Your task to perform on an android device: uninstall "NewsBreak: Local News & Alerts" Image 0: 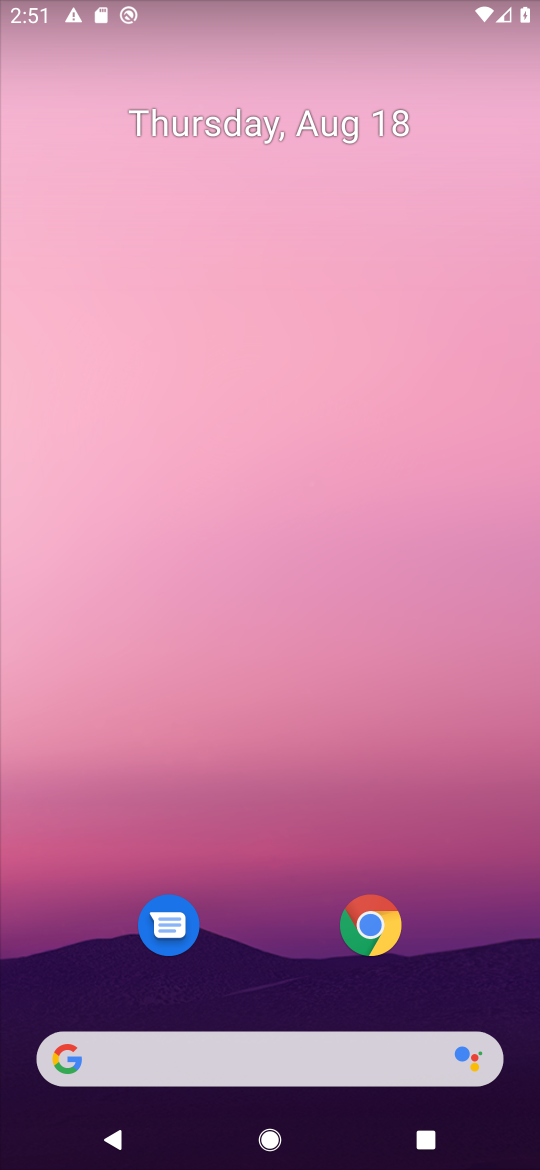
Step 0: drag from (314, 521) to (323, 381)
Your task to perform on an android device: uninstall "NewsBreak: Local News & Alerts" Image 1: 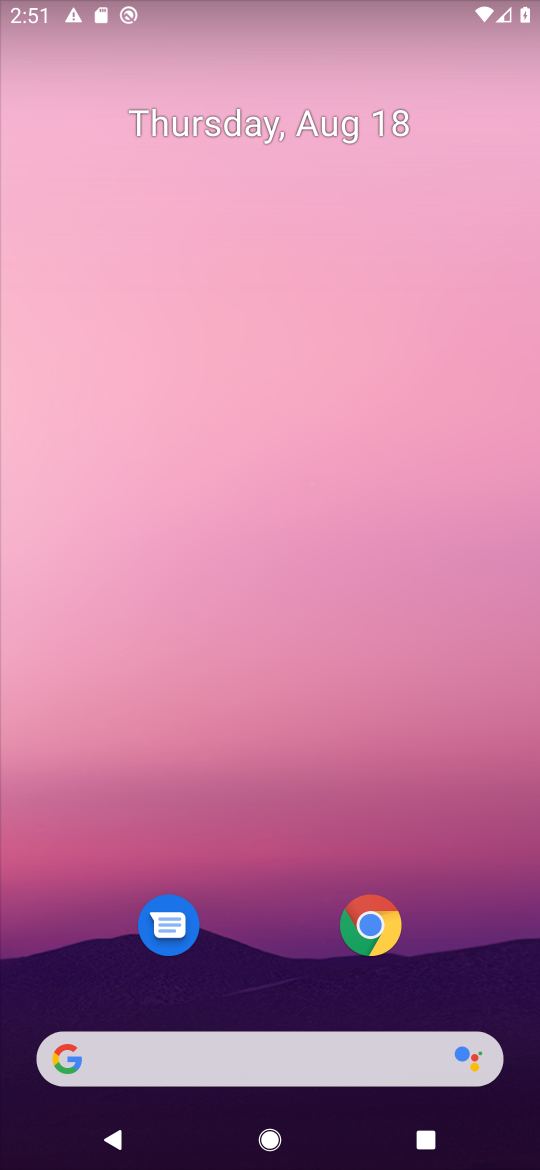
Step 1: drag from (289, 682) to (346, 265)
Your task to perform on an android device: uninstall "NewsBreak: Local News & Alerts" Image 2: 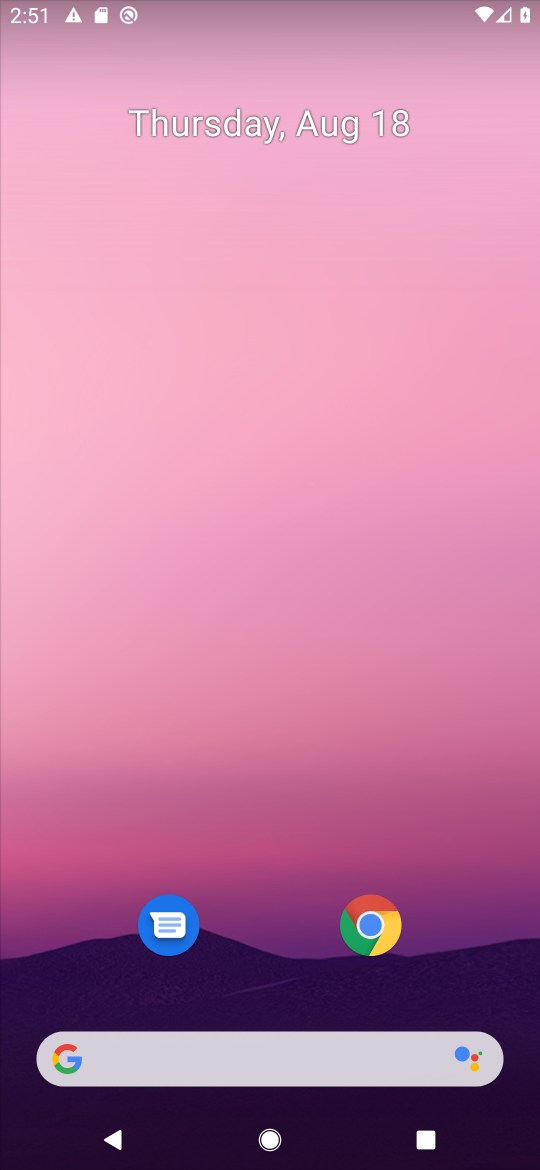
Step 2: click (260, 292)
Your task to perform on an android device: uninstall "NewsBreak: Local News & Alerts" Image 3: 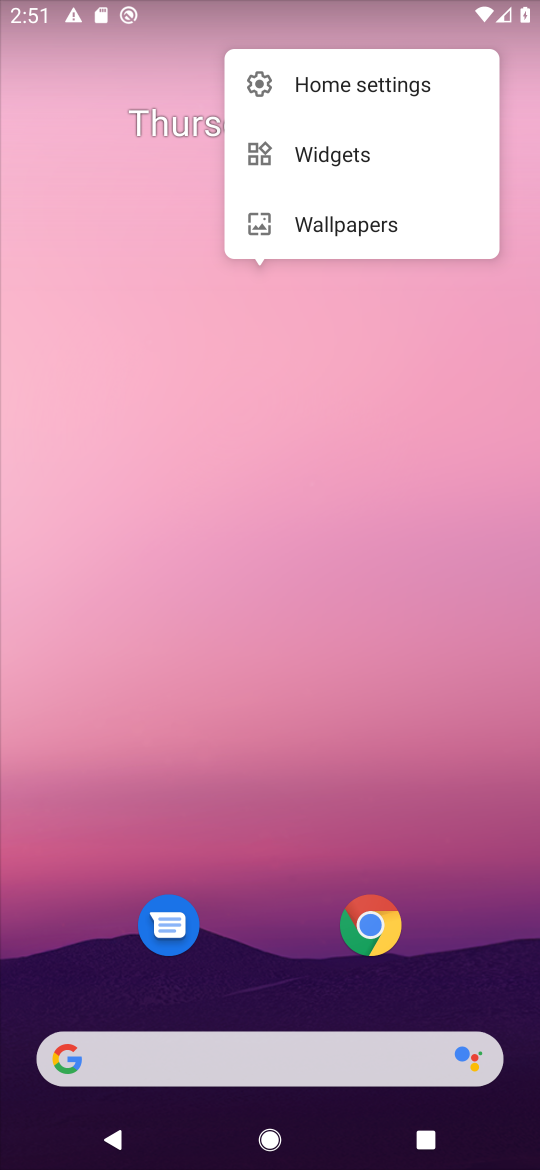
Step 3: click (242, 954)
Your task to perform on an android device: uninstall "NewsBreak: Local News & Alerts" Image 4: 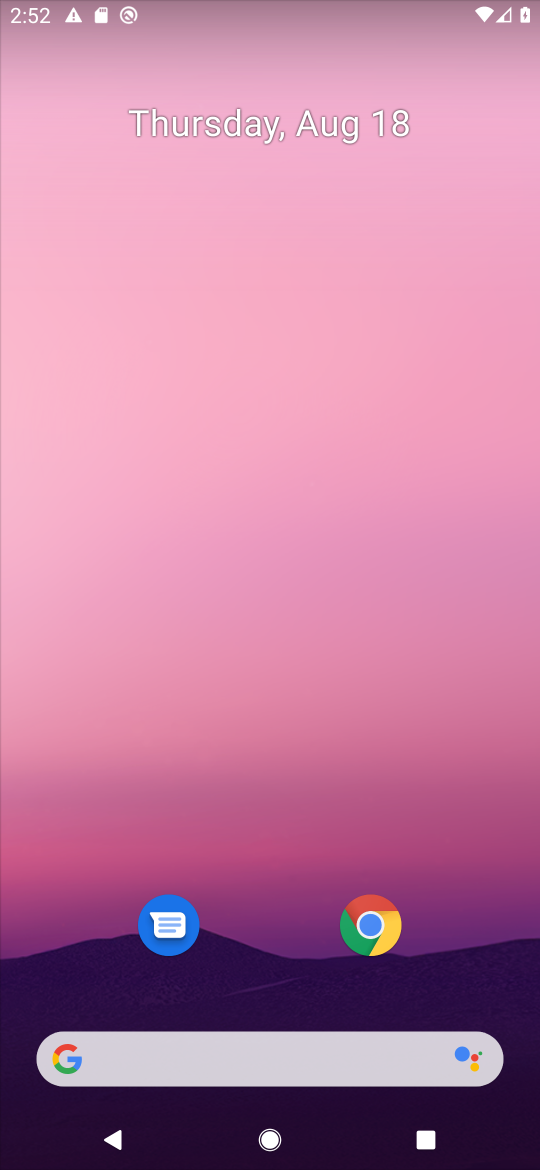
Step 4: drag from (236, 844) to (123, 18)
Your task to perform on an android device: uninstall "NewsBreak: Local News & Alerts" Image 5: 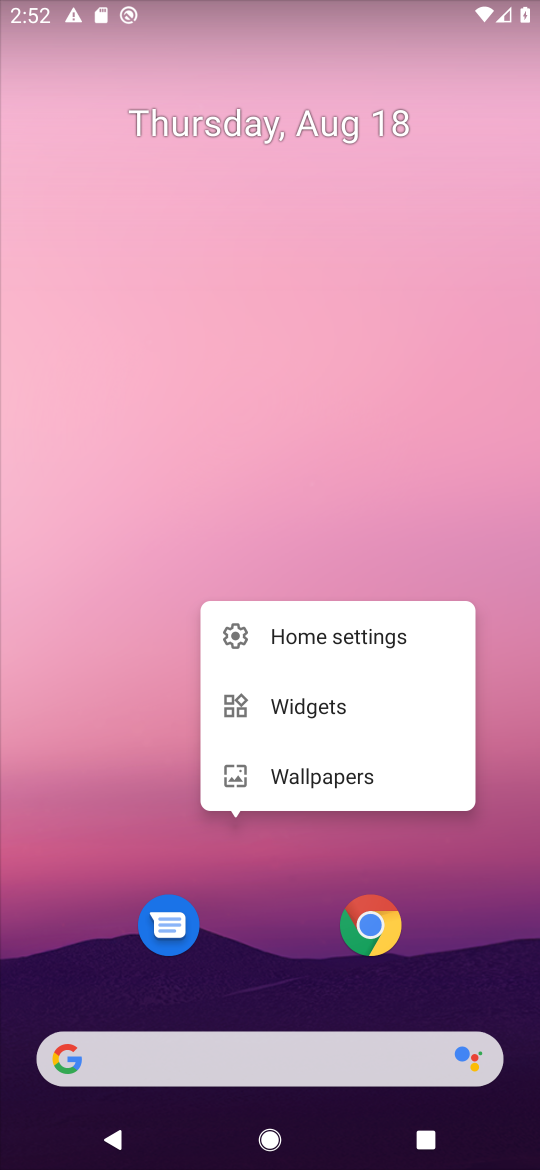
Step 5: drag from (255, 865) to (219, 255)
Your task to perform on an android device: uninstall "NewsBreak: Local News & Alerts" Image 6: 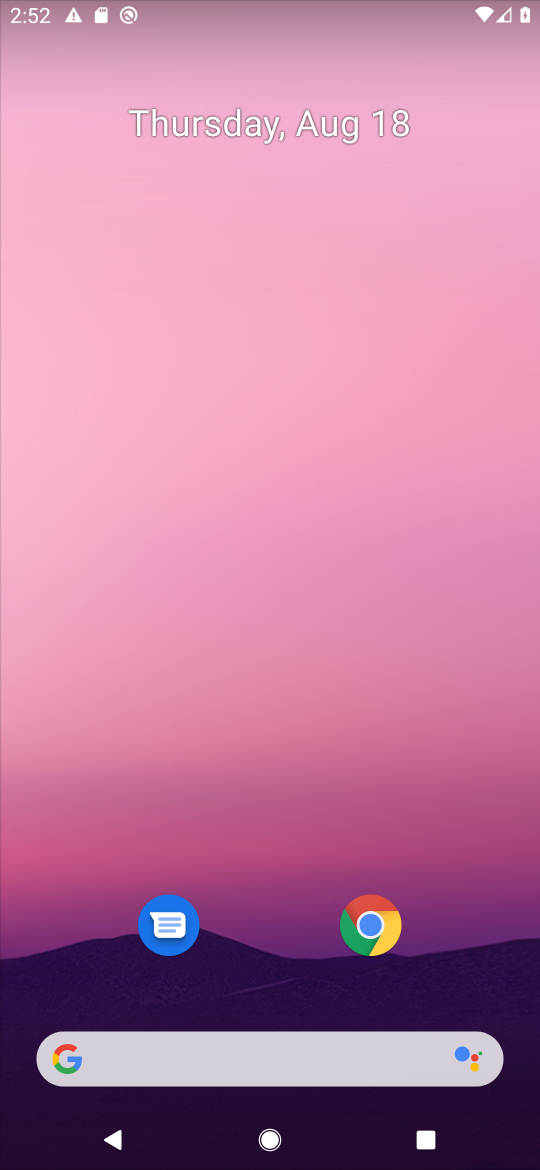
Step 6: drag from (274, 978) to (329, 221)
Your task to perform on an android device: uninstall "NewsBreak: Local News & Alerts" Image 7: 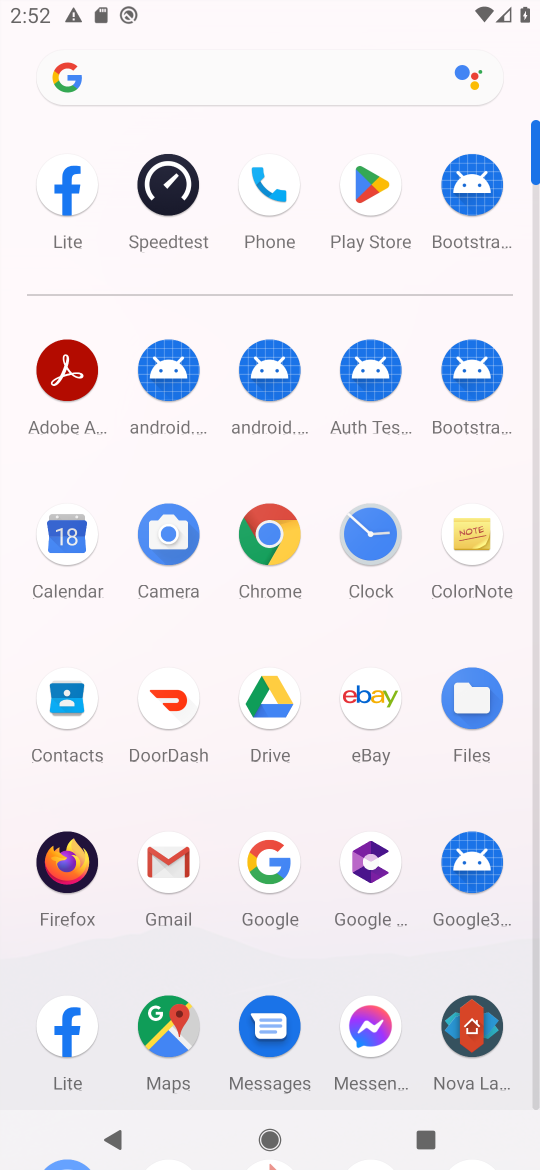
Step 7: click (373, 200)
Your task to perform on an android device: uninstall "NewsBreak: Local News & Alerts" Image 8: 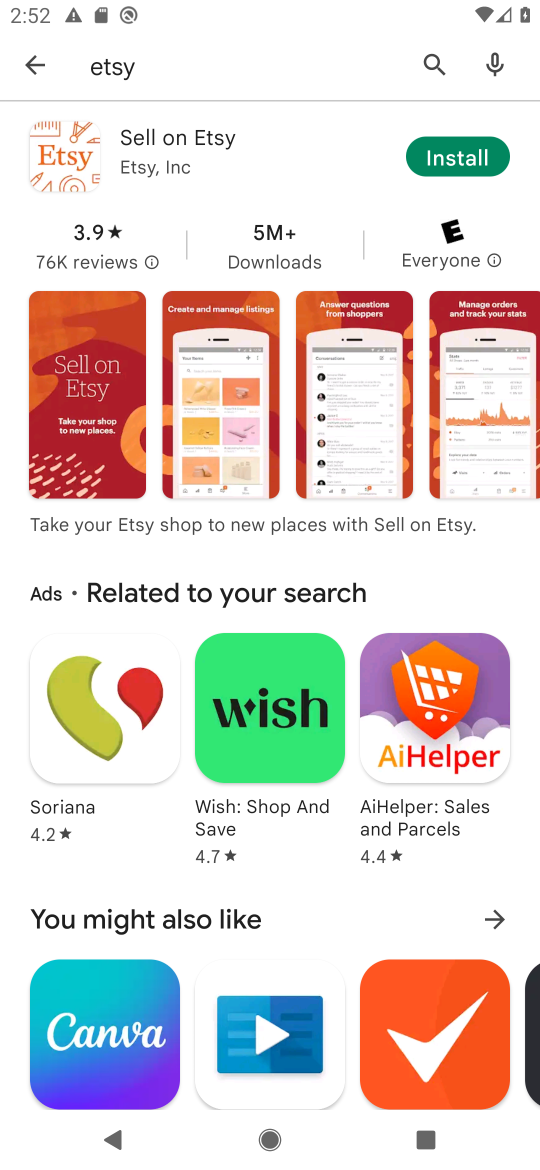
Step 8: click (37, 69)
Your task to perform on an android device: uninstall "NewsBreak: Local News & Alerts" Image 9: 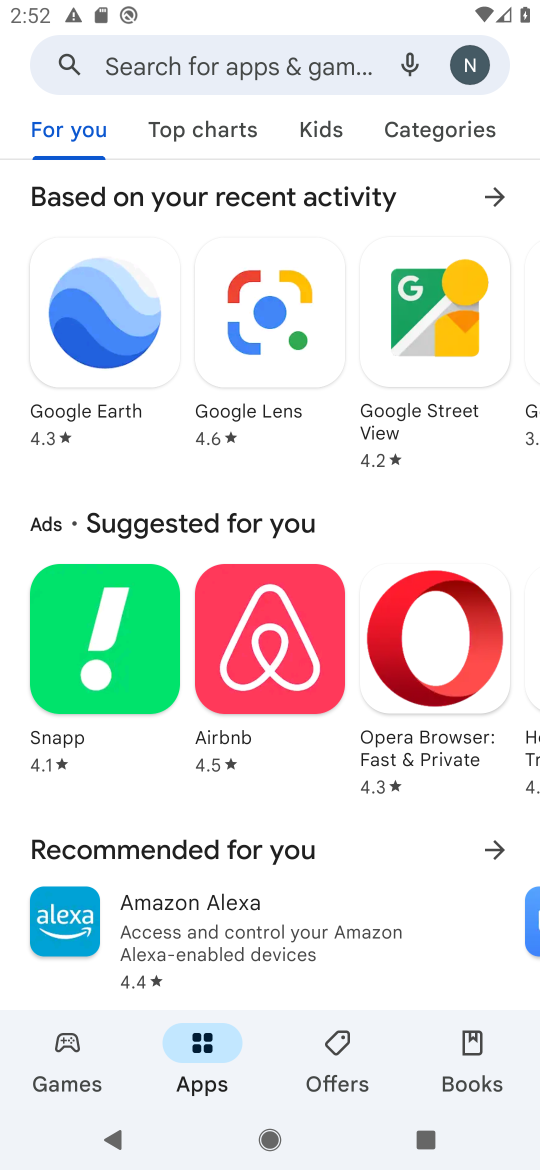
Step 9: click (187, 67)
Your task to perform on an android device: uninstall "NewsBreak: Local News & Alerts" Image 10: 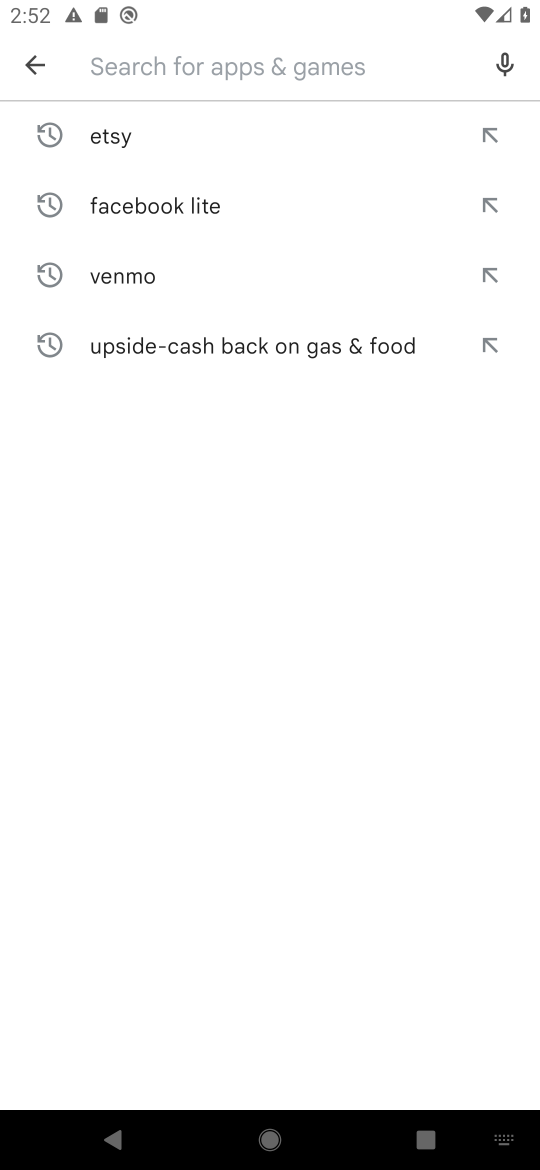
Step 10: type "NewsBreak: Local News & Alerts"
Your task to perform on an android device: uninstall "NewsBreak: Local News & Alerts" Image 11: 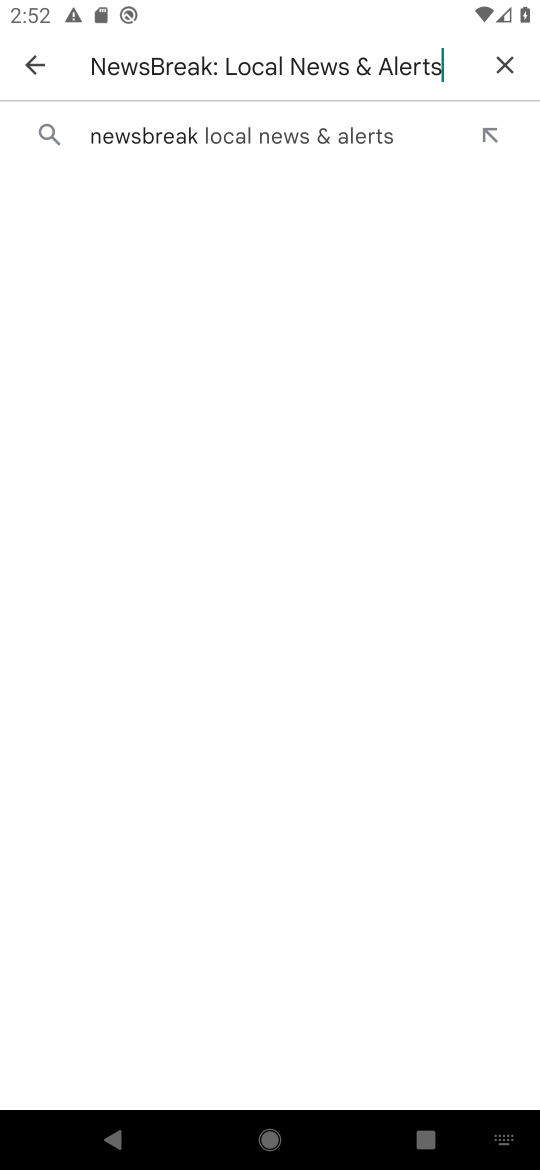
Step 11: click (332, 131)
Your task to perform on an android device: uninstall "NewsBreak: Local News & Alerts" Image 12: 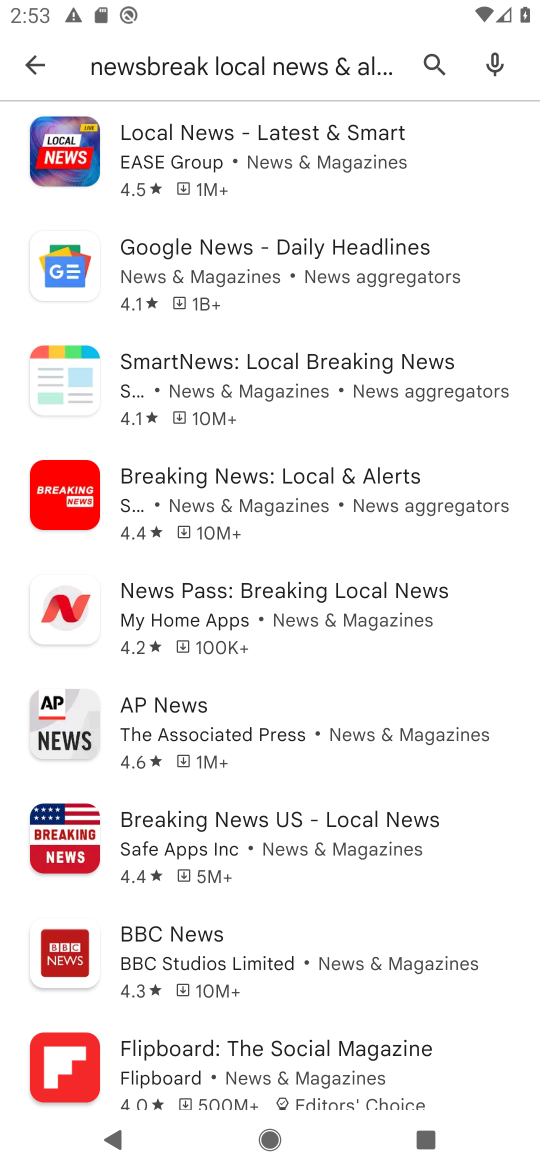
Step 12: task complete